Your task to perform on an android device: How much does a 2 bedroom apartment rent for in San Francisco? Image 0: 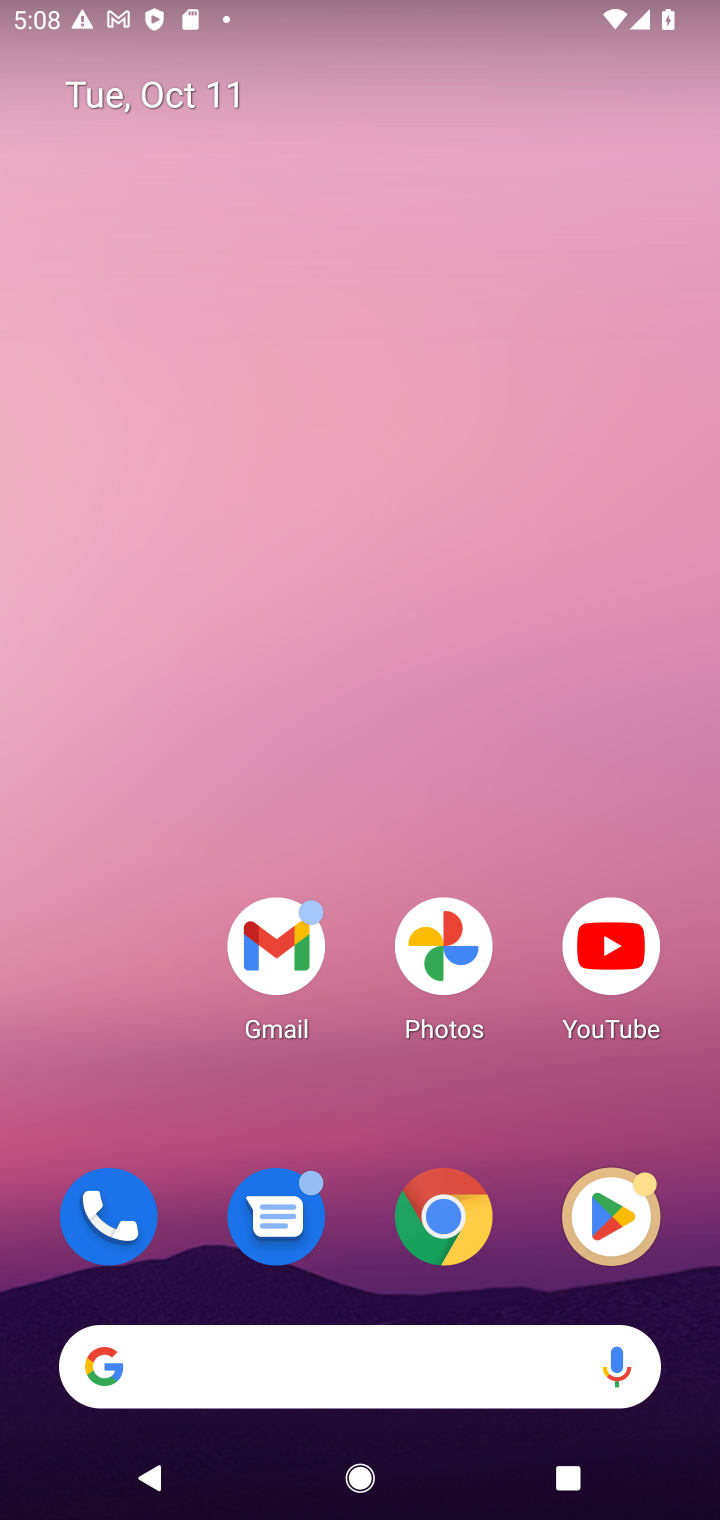
Step 0: click (447, 1217)
Your task to perform on an android device: How much does a 2 bedroom apartment rent for in San Francisco? Image 1: 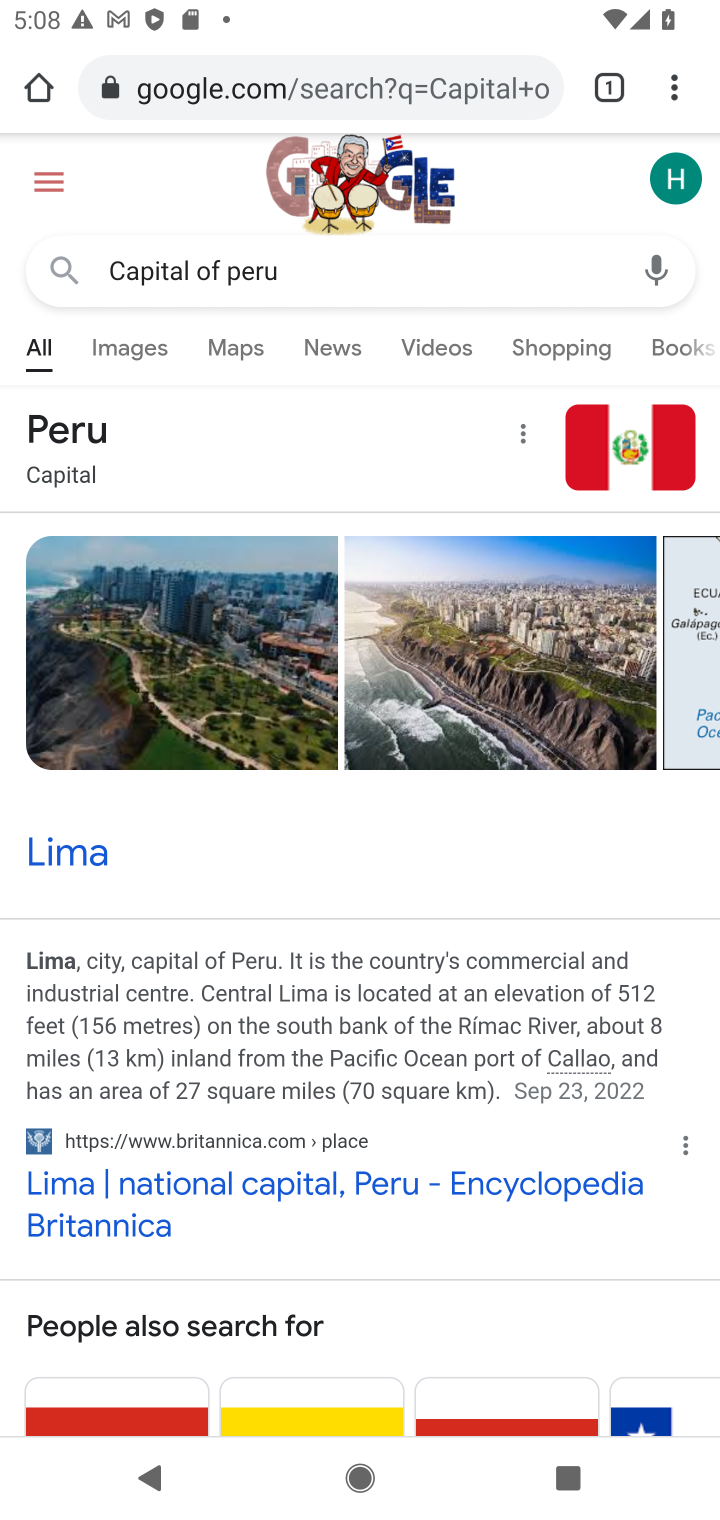
Step 1: click (480, 82)
Your task to perform on an android device: How much does a 2 bedroom apartment rent for in San Francisco? Image 2: 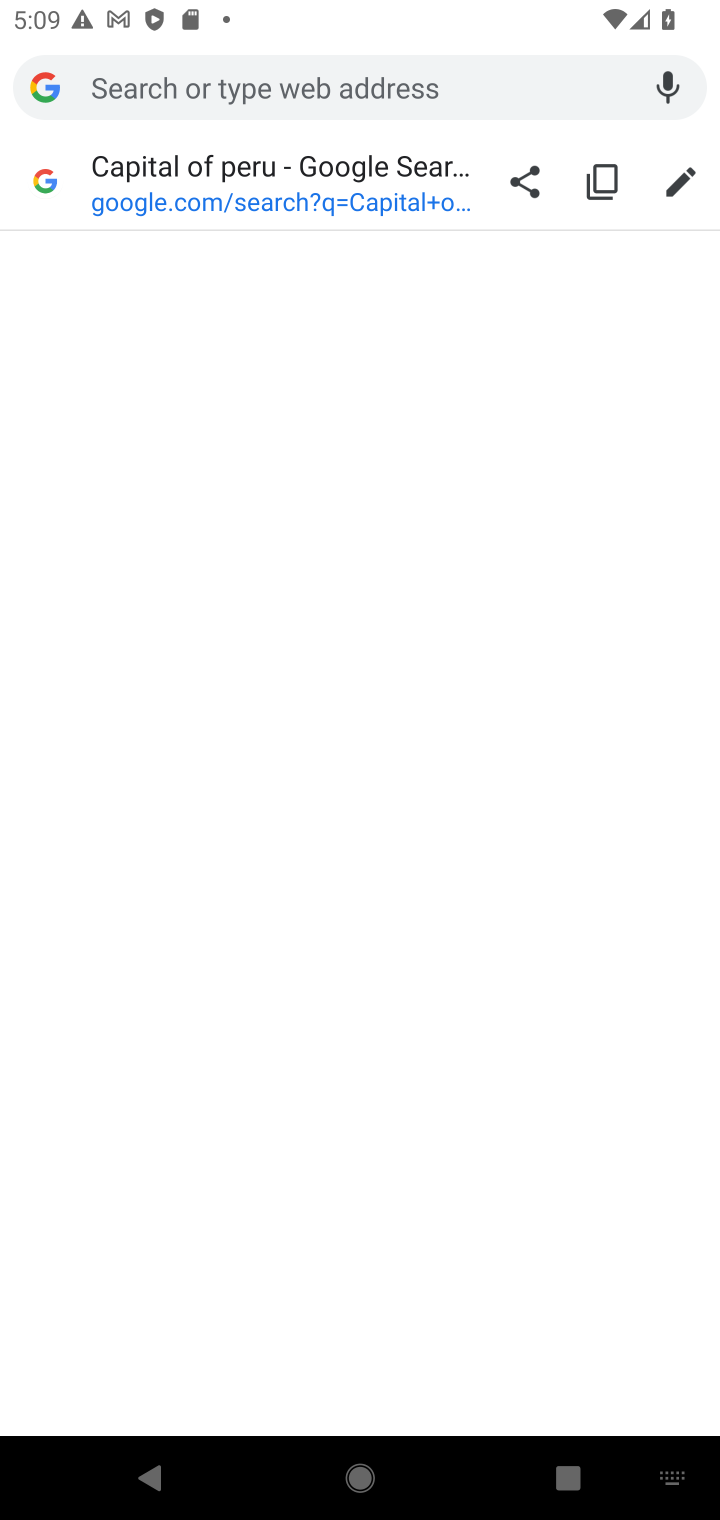
Step 2: type "How much does a 2 bedroom apartment rent for in San Francisco?"
Your task to perform on an android device: How much does a 2 bedroom apartment rent for in San Francisco? Image 3: 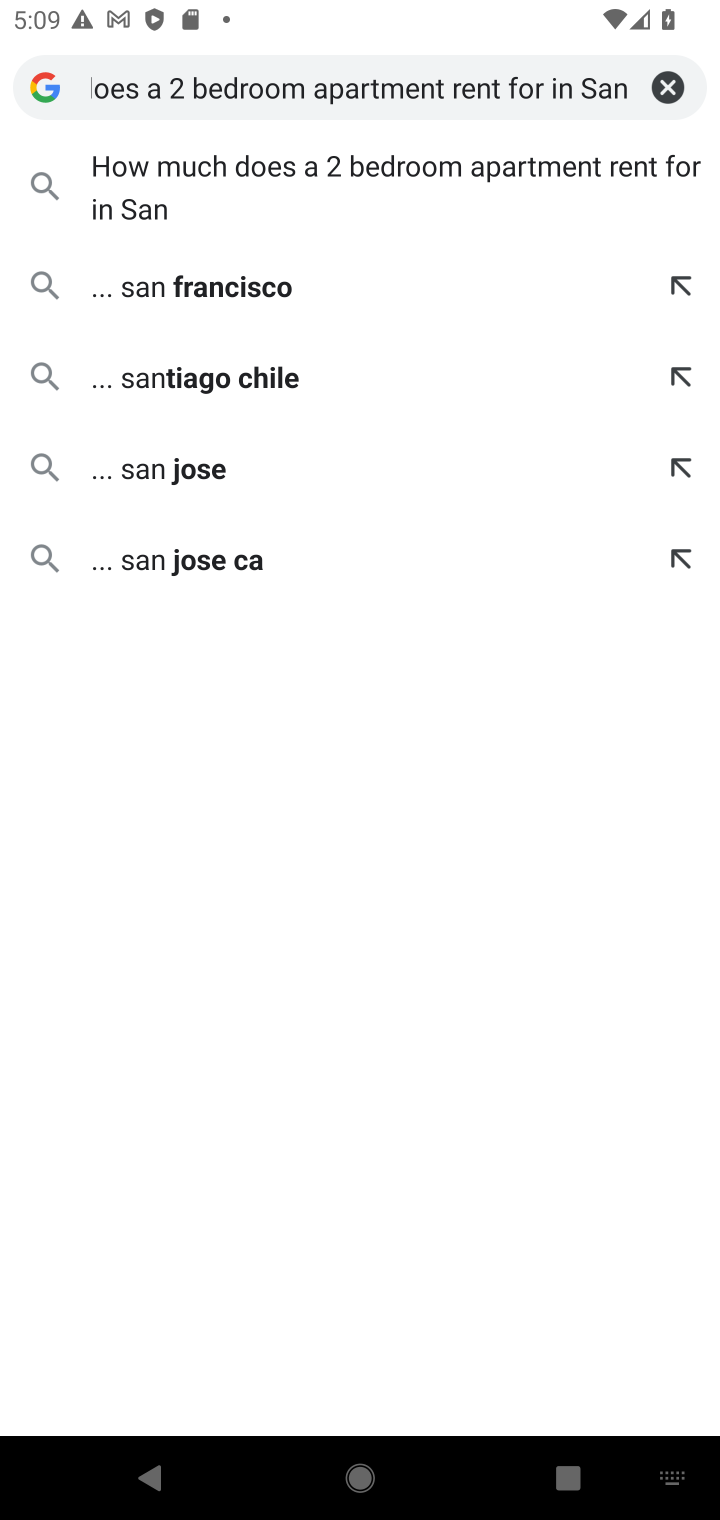
Step 3: click (382, 174)
Your task to perform on an android device: How much does a 2 bedroom apartment rent for in San Francisco? Image 4: 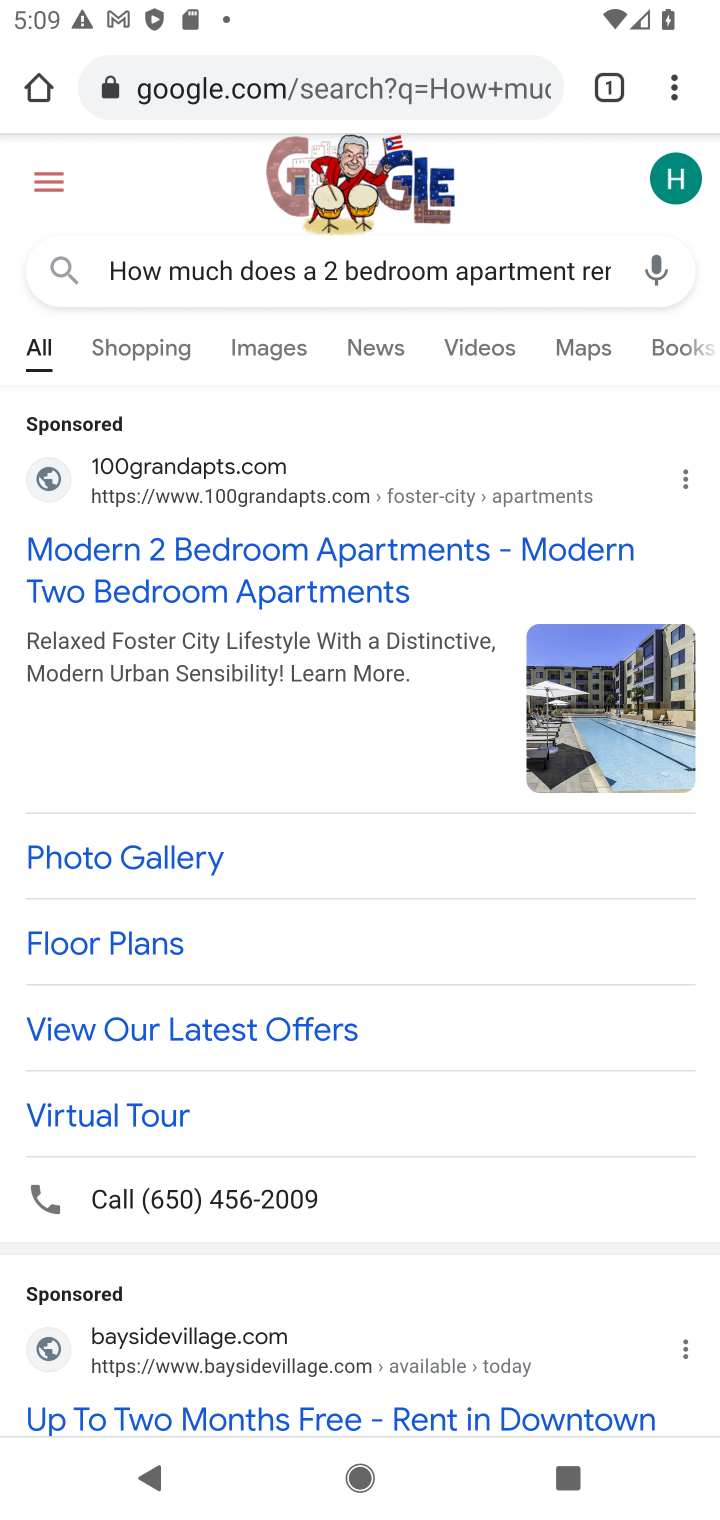
Step 4: drag from (325, 1169) to (372, 646)
Your task to perform on an android device: How much does a 2 bedroom apartment rent for in San Francisco? Image 5: 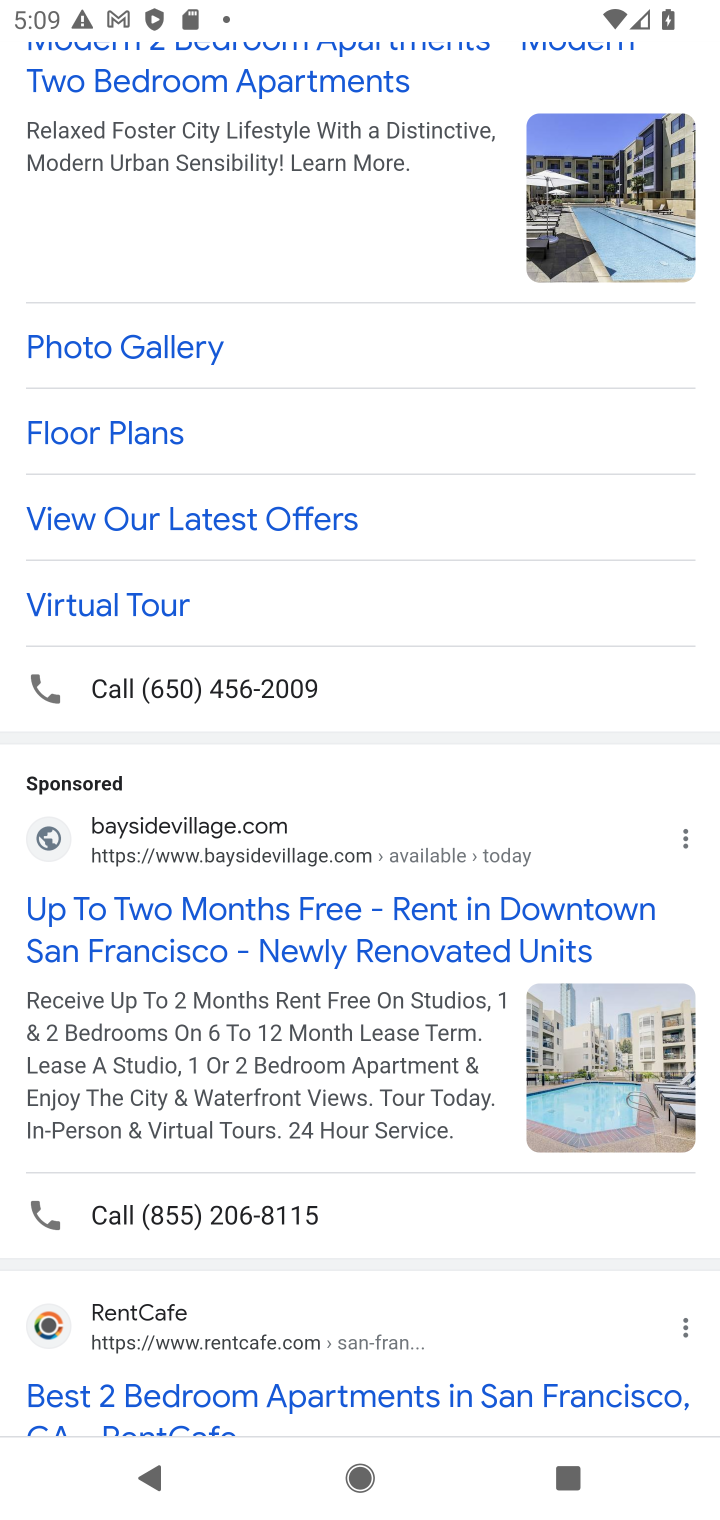
Step 5: drag from (280, 1332) to (481, 1001)
Your task to perform on an android device: How much does a 2 bedroom apartment rent for in San Francisco? Image 6: 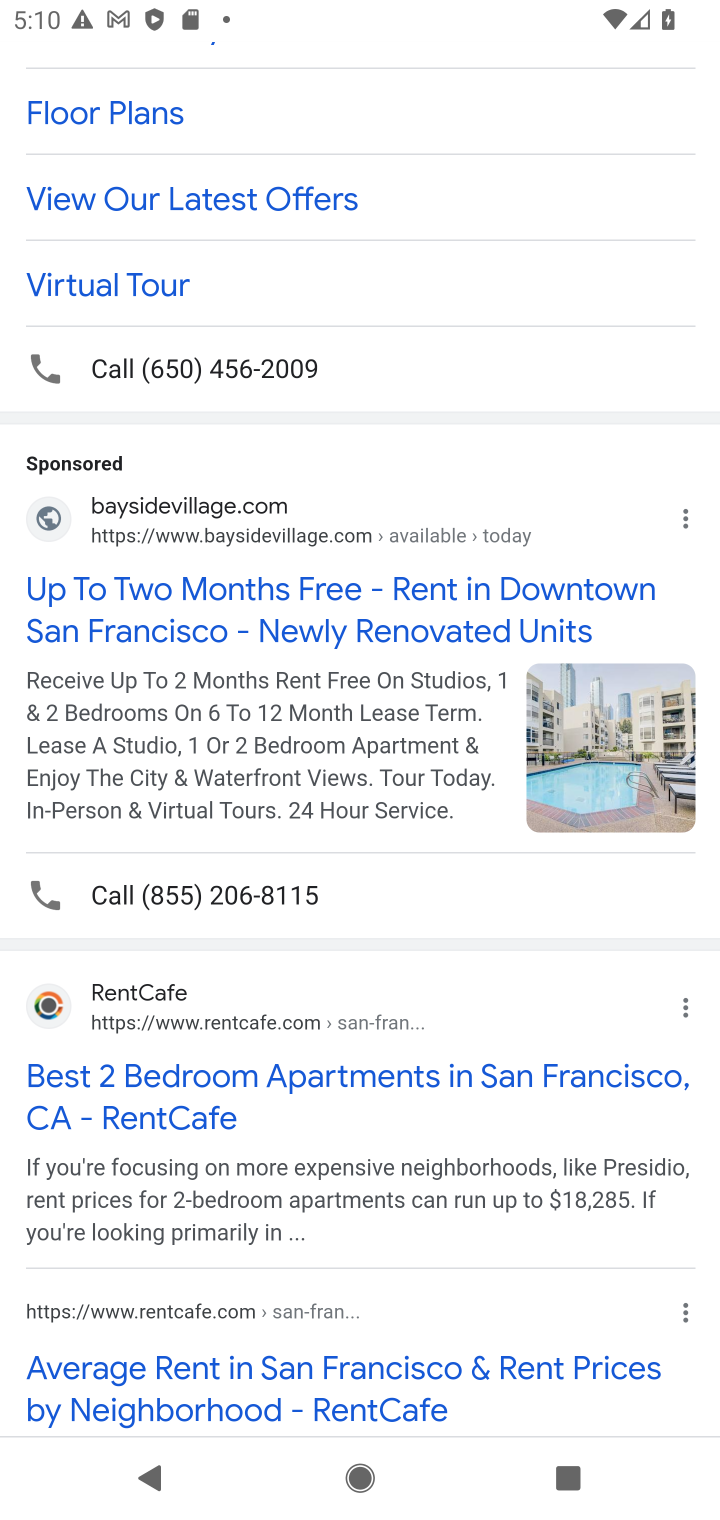
Step 6: click (255, 1051)
Your task to perform on an android device: How much does a 2 bedroom apartment rent for in San Francisco? Image 7: 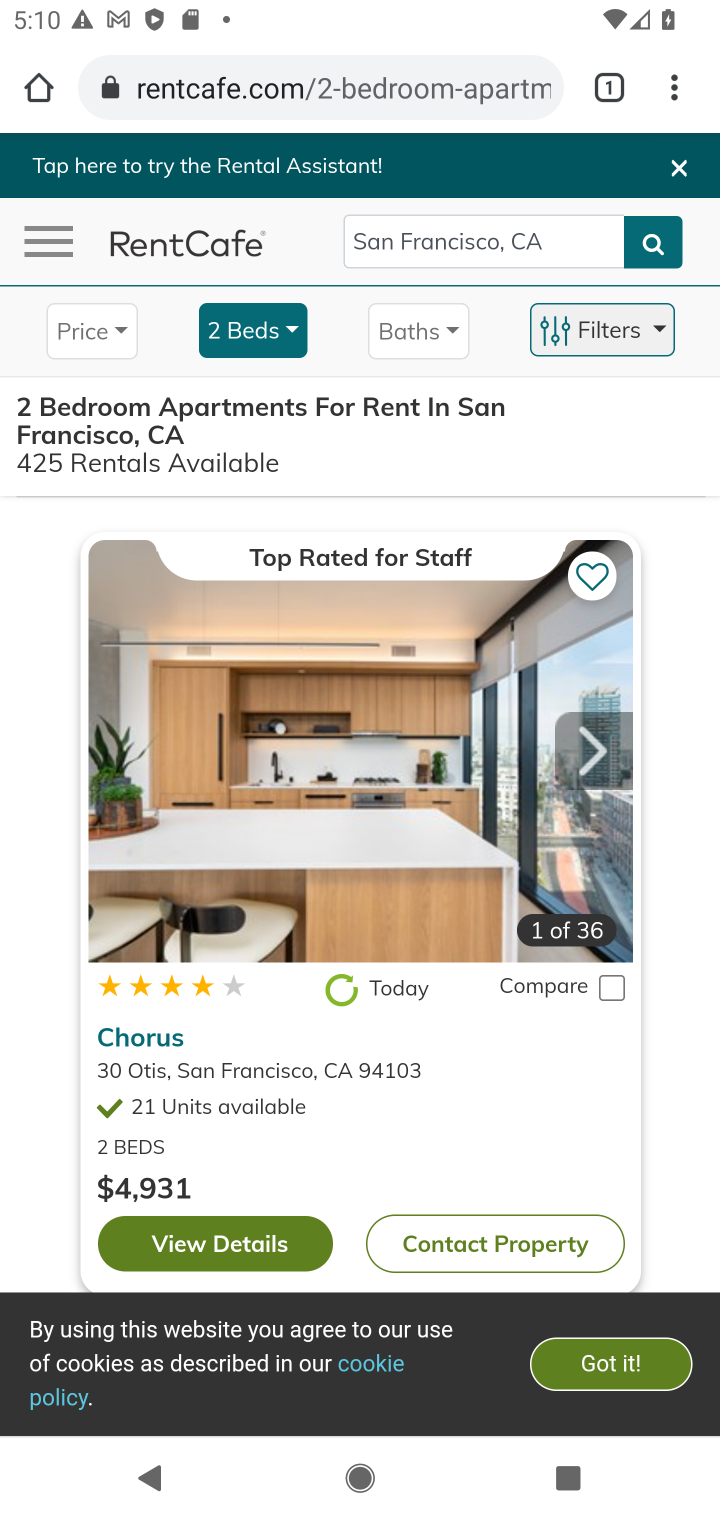
Step 7: drag from (416, 1051) to (488, 717)
Your task to perform on an android device: How much does a 2 bedroom apartment rent for in San Francisco? Image 8: 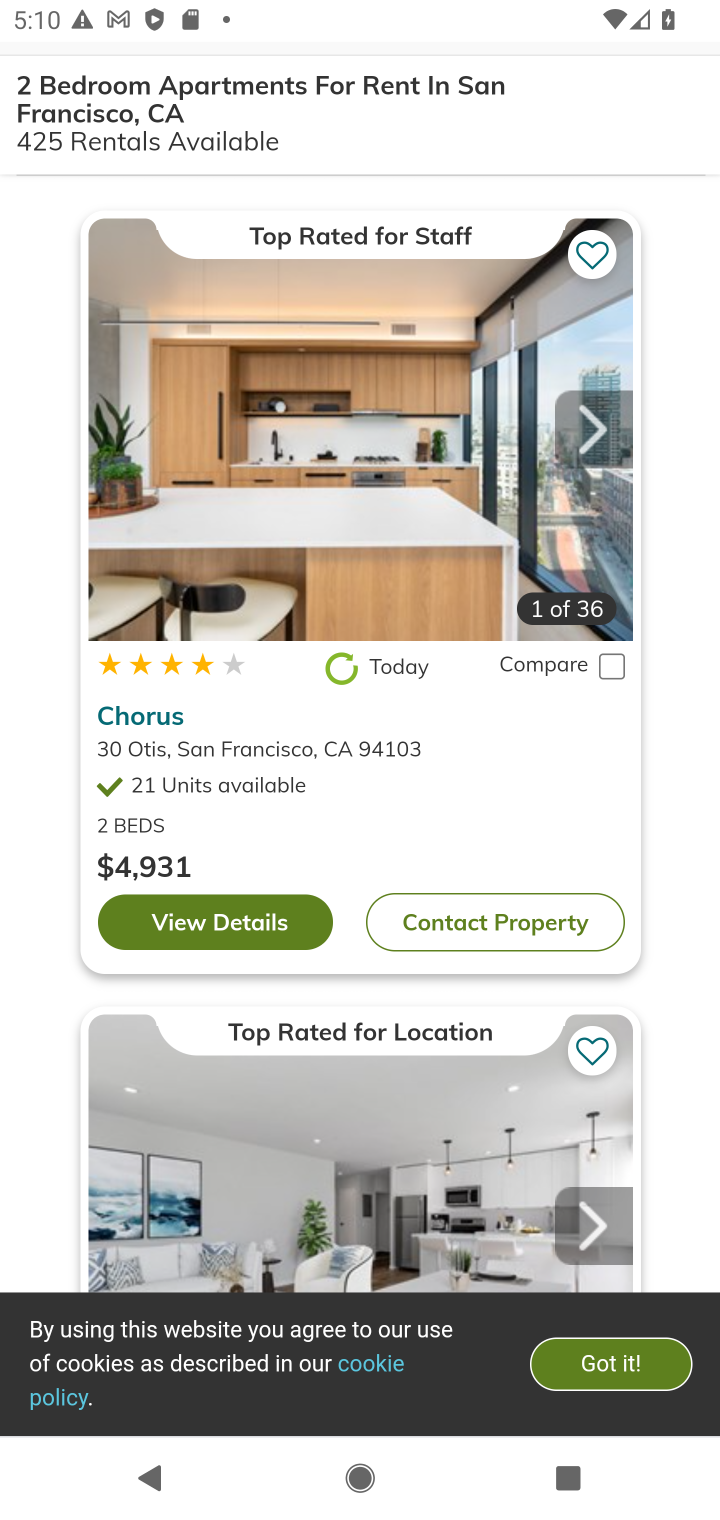
Step 8: drag from (294, 1167) to (377, 704)
Your task to perform on an android device: How much does a 2 bedroom apartment rent for in San Francisco? Image 9: 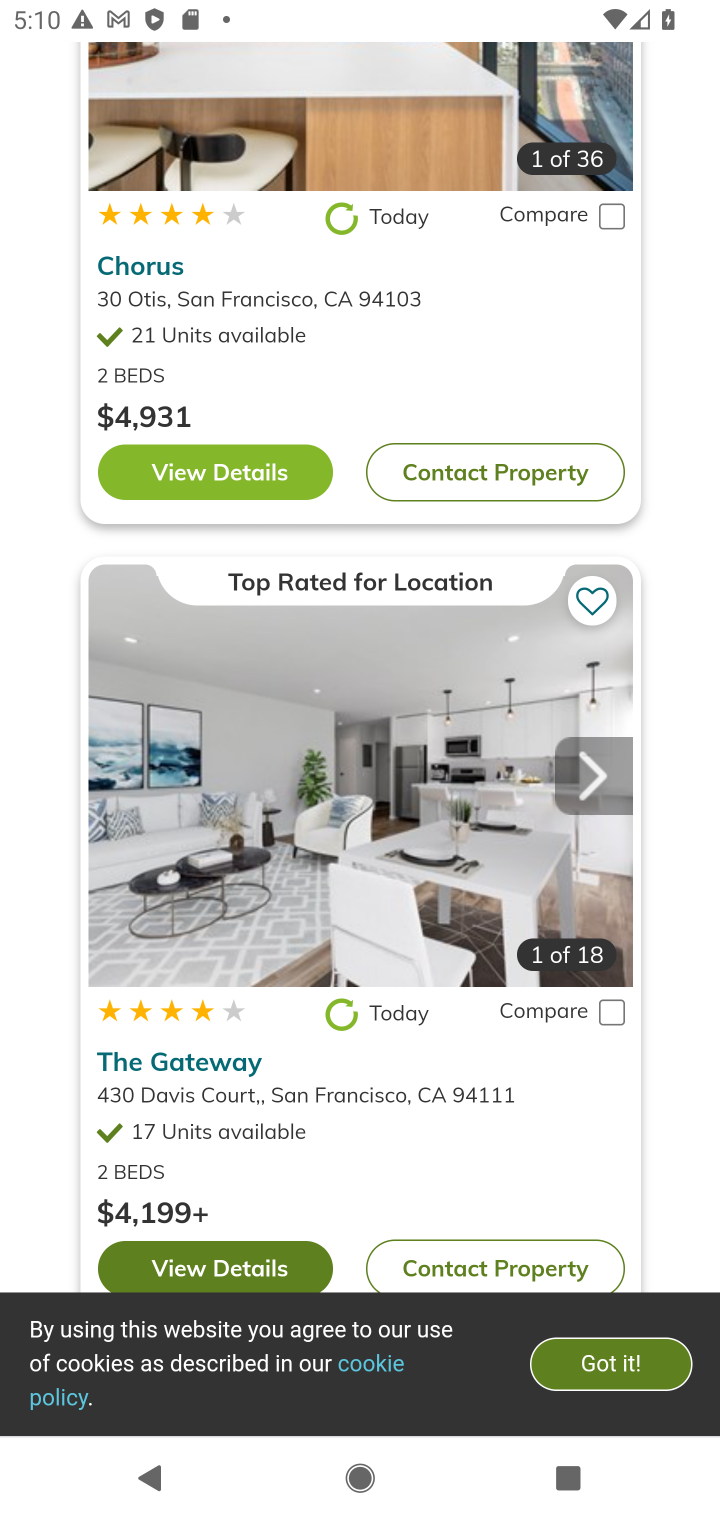
Step 9: click (621, 1369)
Your task to perform on an android device: How much does a 2 bedroom apartment rent for in San Francisco? Image 10: 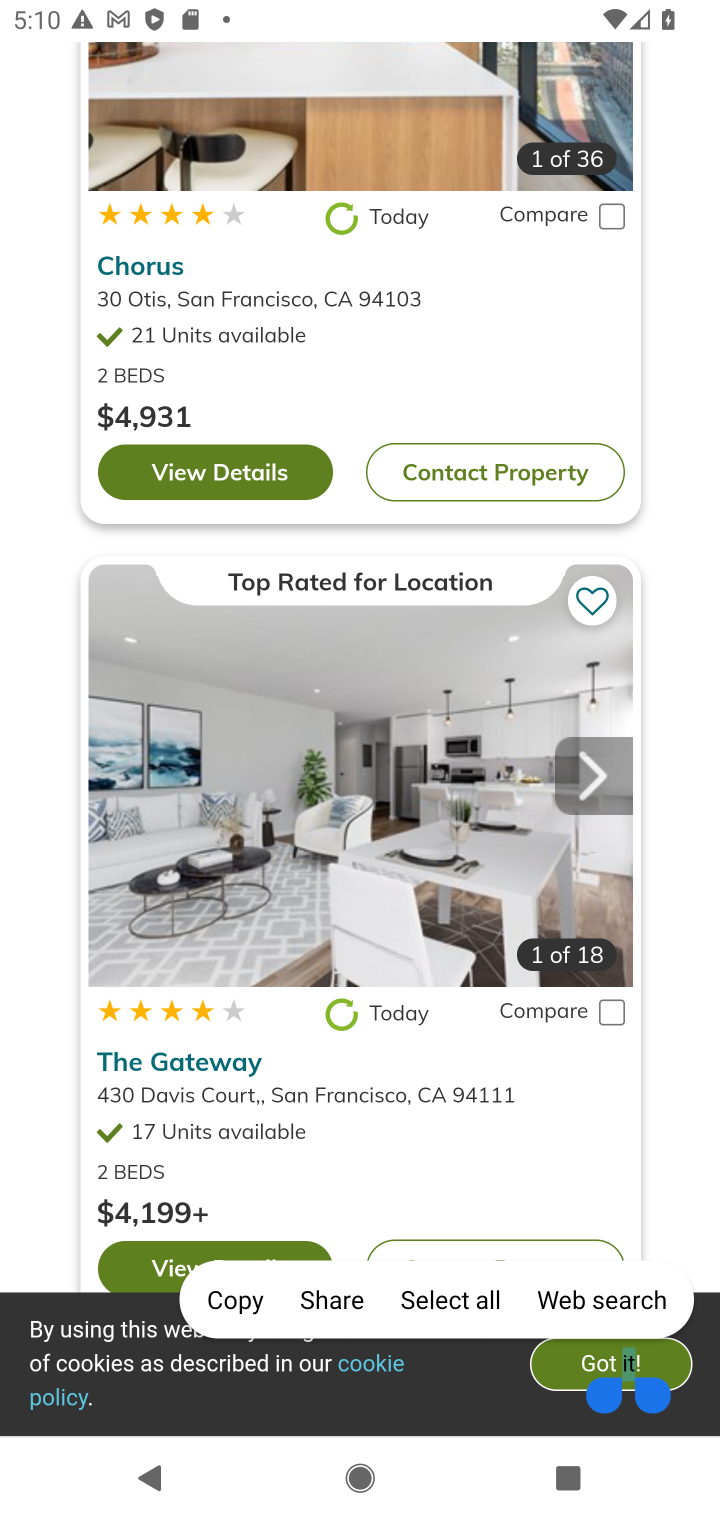
Step 10: click (597, 1362)
Your task to perform on an android device: How much does a 2 bedroom apartment rent for in San Francisco? Image 11: 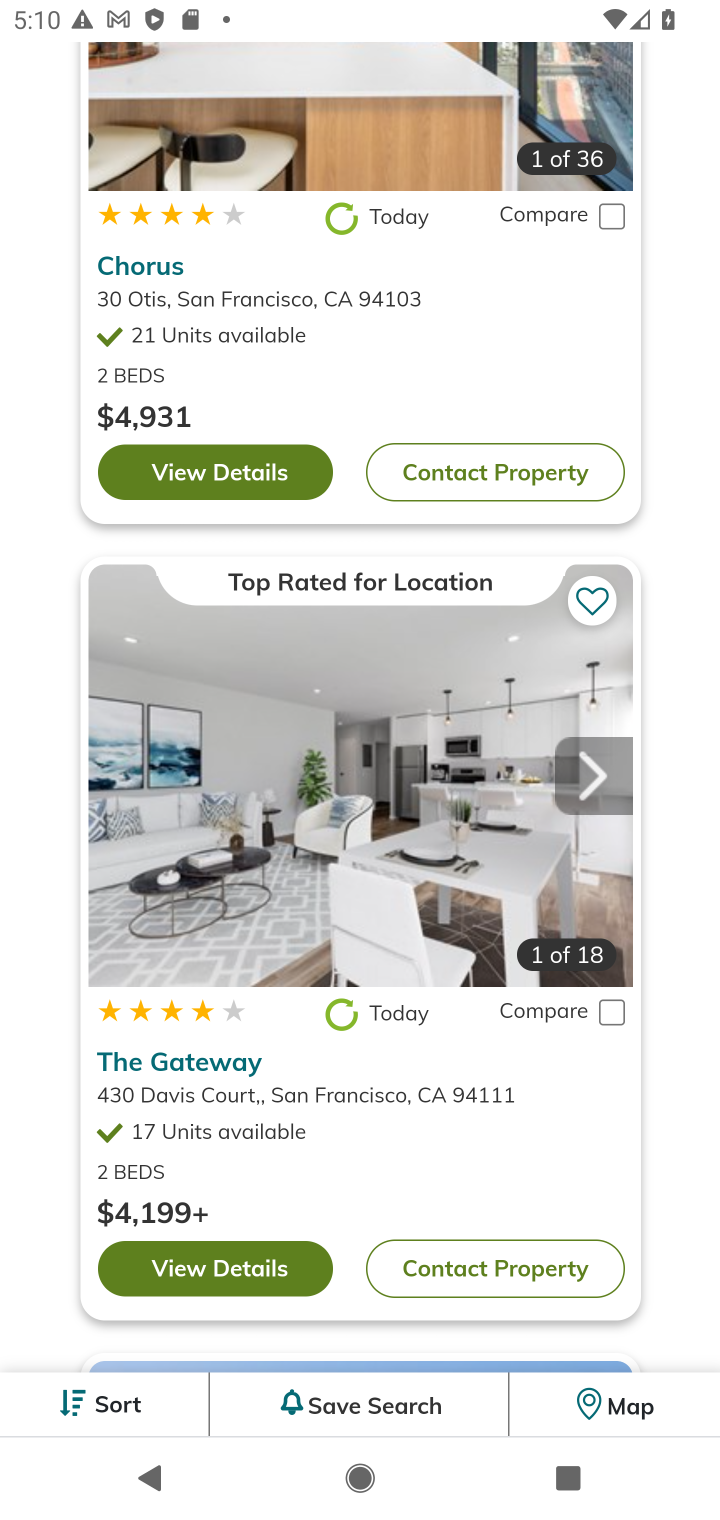
Step 11: task complete